Your task to perform on an android device: toggle pop-ups in chrome Image 0: 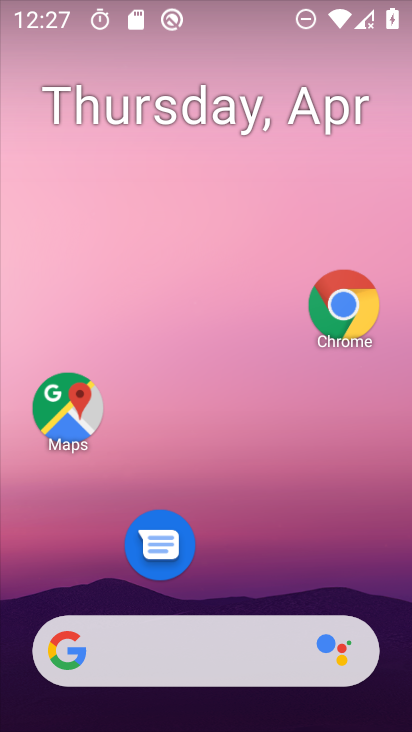
Step 0: drag from (286, 518) to (334, 49)
Your task to perform on an android device: toggle pop-ups in chrome Image 1: 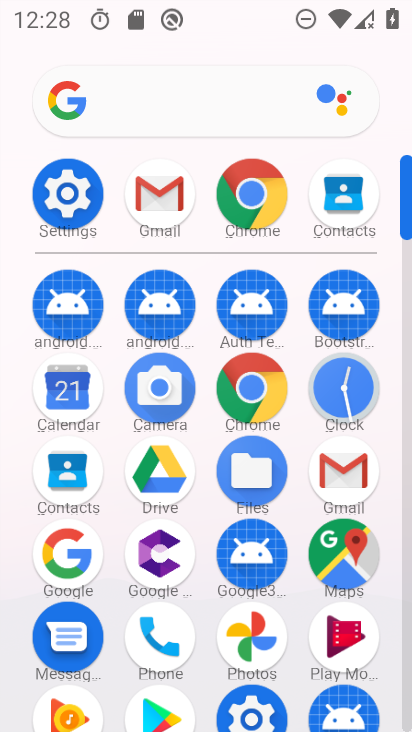
Step 1: click (261, 217)
Your task to perform on an android device: toggle pop-ups in chrome Image 2: 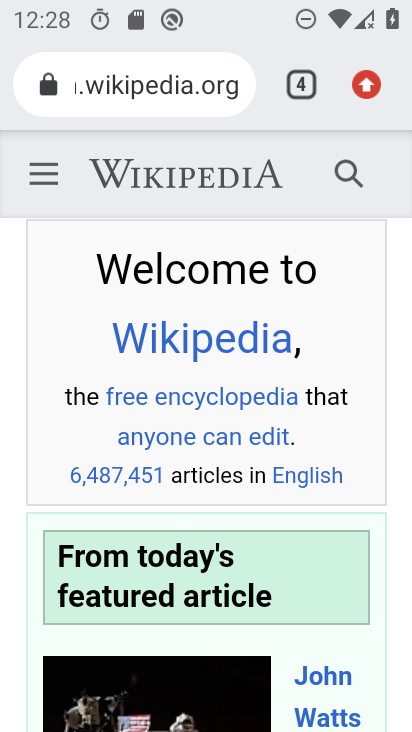
Step 2: click (371, 81)
Your task to perform on an android device: toggle pop-ups in chrome Image 3: 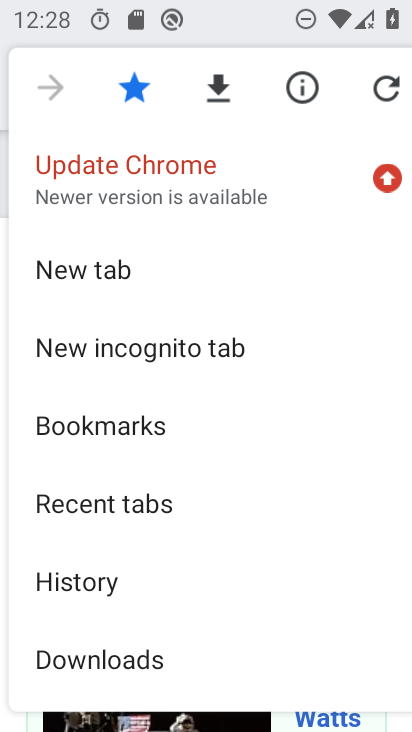
Step 3: drag from (279, 462) to (280, 247)
Your task to perform on an android device: toggle pop-ups in chrome Image 4: 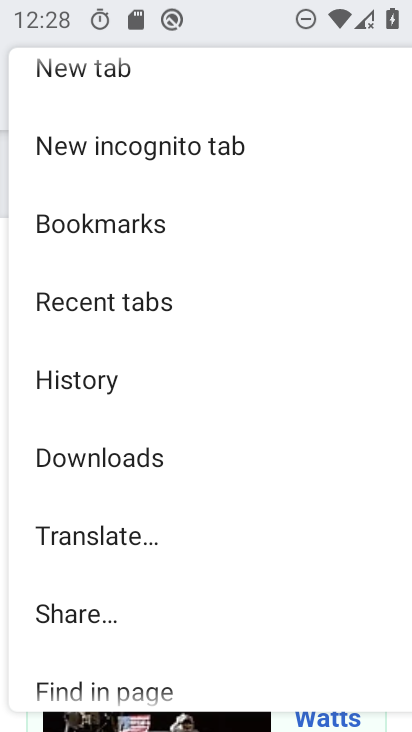
Step 4: drag from (291, 546) to (303, 336)
Your task to perform on an android device: toggle pop-ups in chrome Image 5: 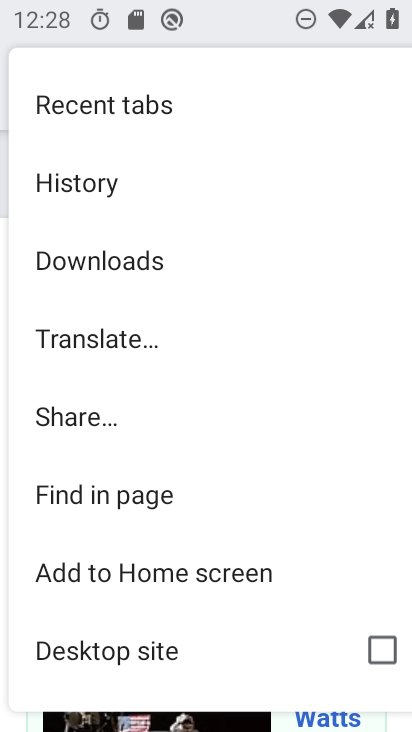
Step 5: drag from (255, 591) to (294, 90)
Your task to perform on an android device: toggle pop-ups in chrome Image 6: 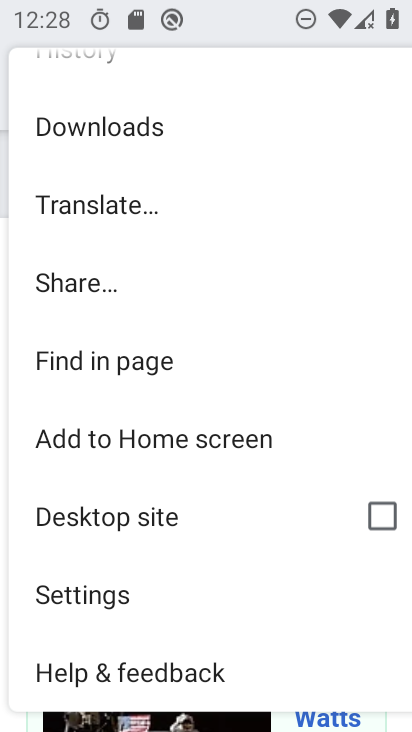
Step 6: click (201, 602)
Your task to perform on an android device: toggle pop-ups in chrome Image 7: 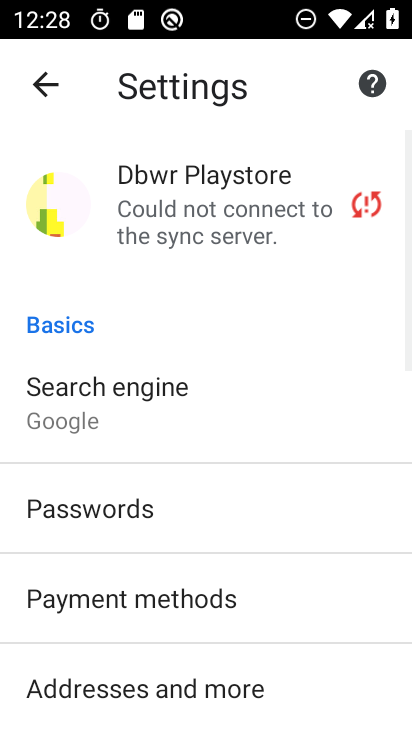
Step 7: drag from (201, 602) to (211, 382)
Your task to perform on an android device: toggle pop-ups in chrome Image 8: 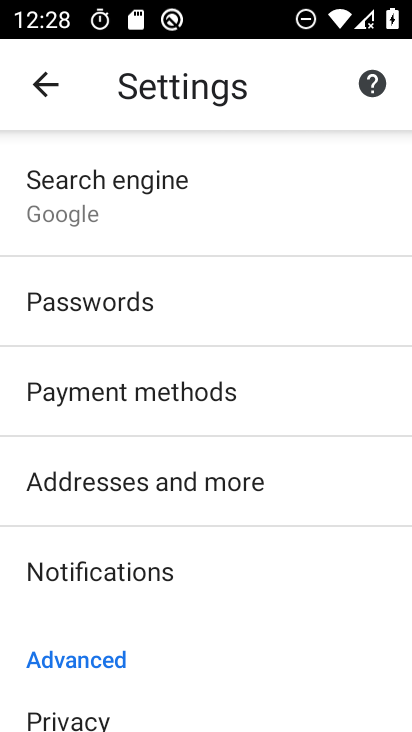
Step 8: drag from (204, 637) to (309, 443)
Your task to perform on an android device: toggle pop-ups in chrome Image 9: 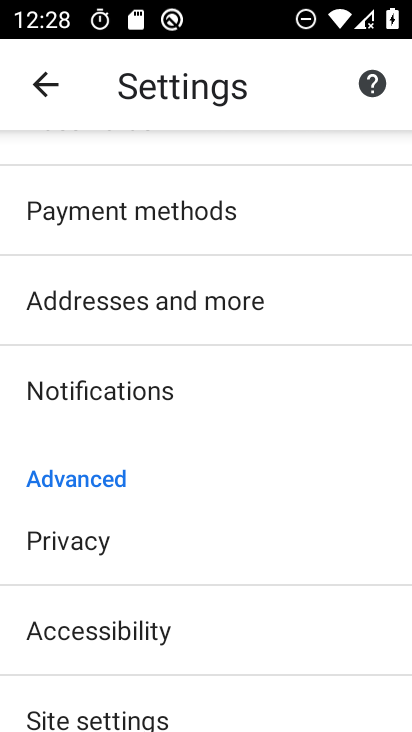
Step 9: drag from (197, 587) to (208, 238)
Your task to perform on an android device: toggle pop-ups in chrome Image 10: 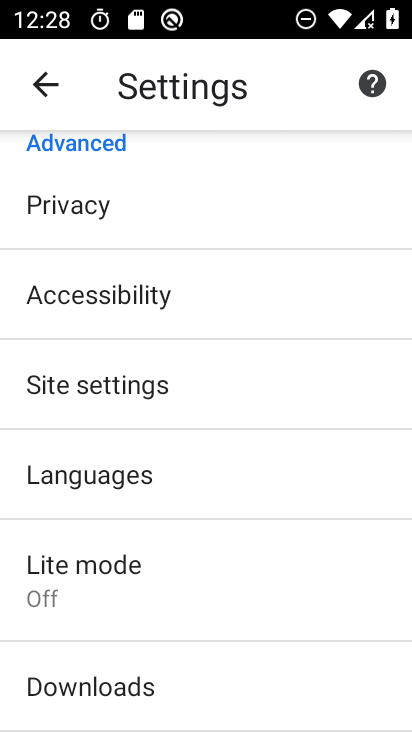
Step 10: click (166, 368)
Your task to perform on an android device: toggle pop-ups in chrome Image 11: 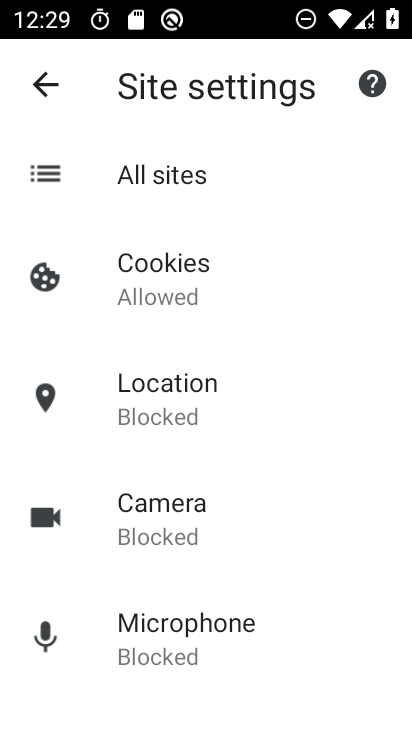
Step 11: drag from (188, 523) to (227, 391)
Your task to perform on an android device: toggle pop-ups in chrome Image 12: 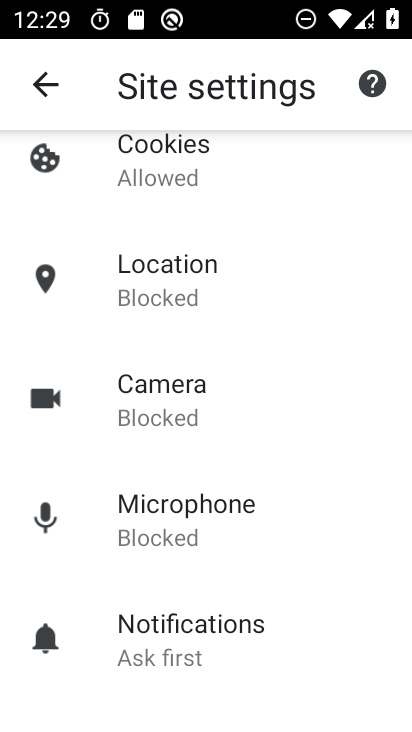
Step 12: drag from (242, 322) to (241, 536)
Your task to perform on an android device: toggle pop-ups in chrome Image 13: 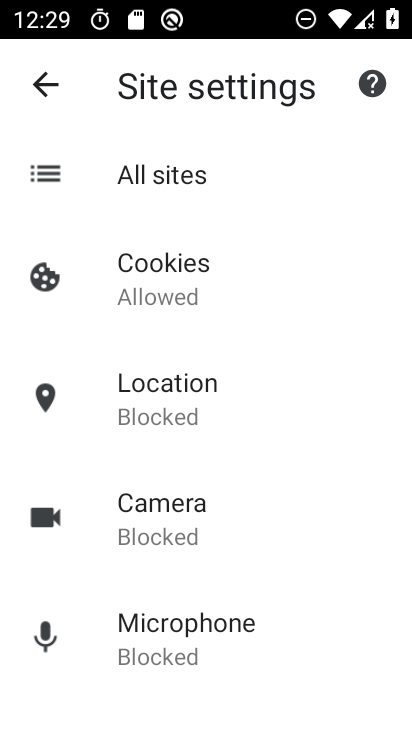
Step 13: drag from (240, 601) to (267, 168)
Your task to perform on an android device: toggle pop-ups in chrome Image 14: 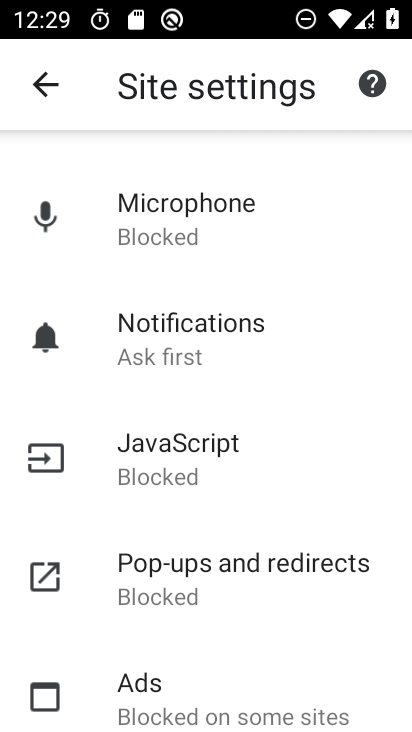
Step 14: click (251, 611)
Your task to perform on an android device: toggle pop-ups in chrome Image 15: 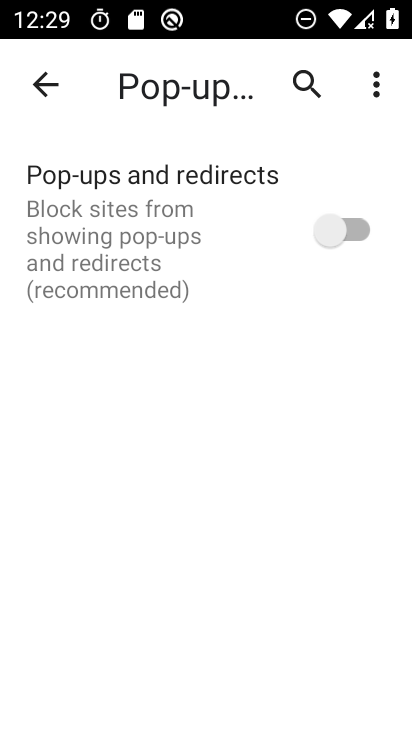
Step 15: click (346, 242)
Your task to perform on an android device: toggle pop-ups in chrome Image 16: 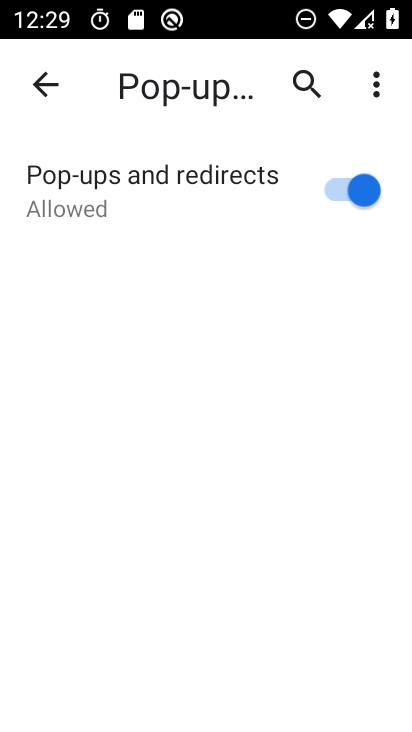
Step 16: task complete